Your task to perform on an android device: change notification settings in the gmail app Image 0: 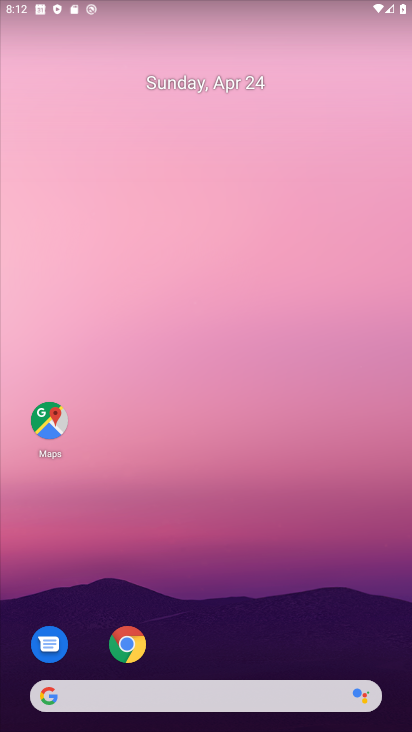
Step 0: drag from (176, 622) to (269, 115)
Your task to perform on an android device: change notification settings in the gmail app Image 1: 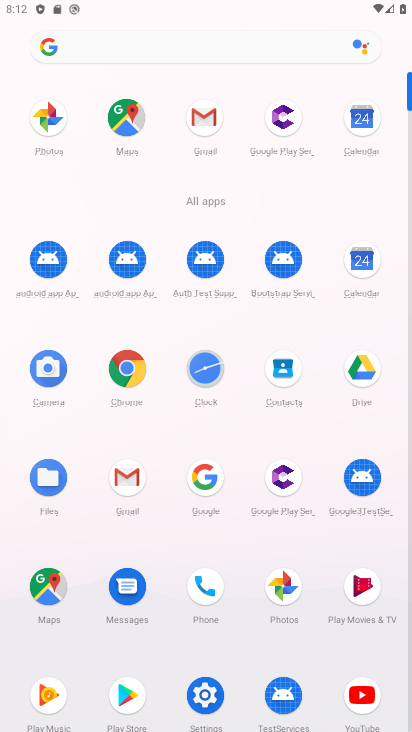
Step 1: click (128, 467)
Your task to perform on an android device: change notification settings in the gmail app Image 2: 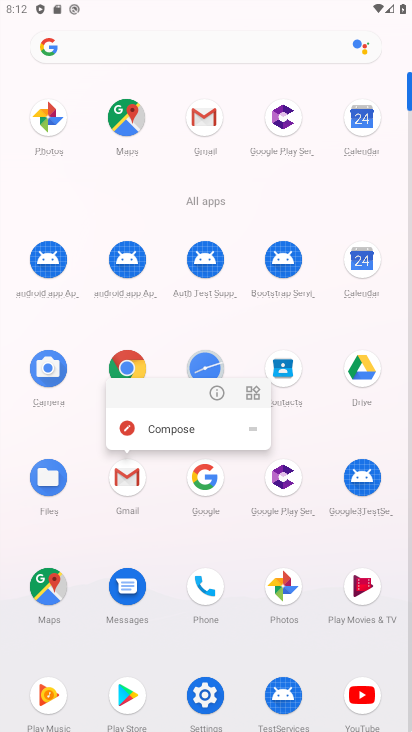
Step 2: click (211, 394)
Your task to perform on an android device: change notification settings in the gmail app Image 3: 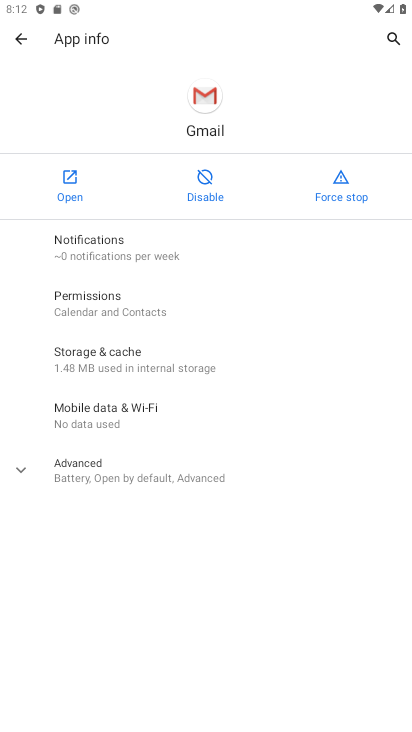
Step 3: click (73, 171)
Your task to perform on an android device: change notification settings in the gmail app Image 4: 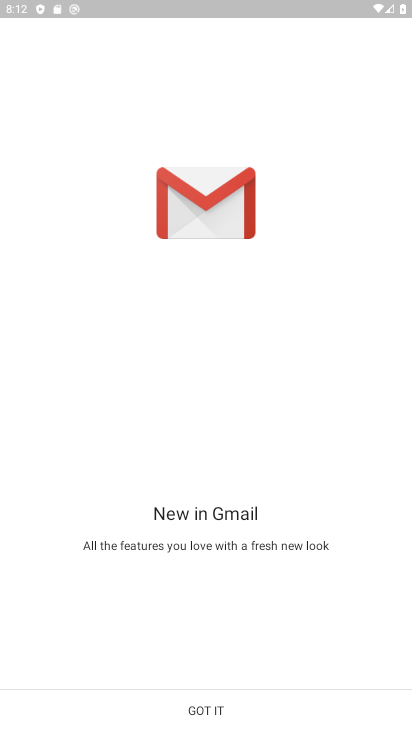
Step 4: click (203, 703)
Your task to perform on an android device: change notification settings in the gmail app Image 5: 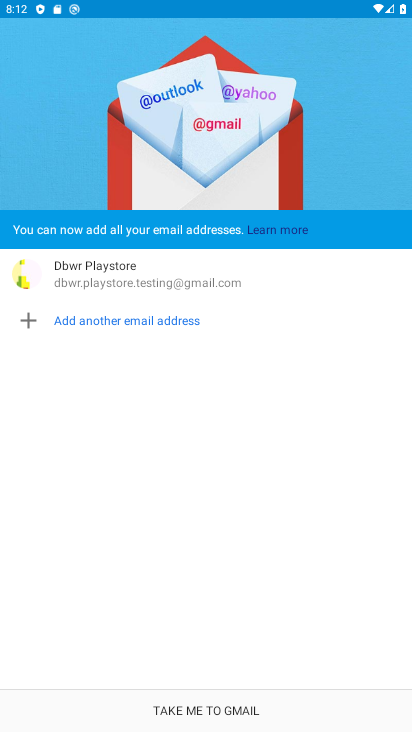
Step 5: click (211, 698)
Your task to perform on an android device: change notification settings in the gmail app Image 6: 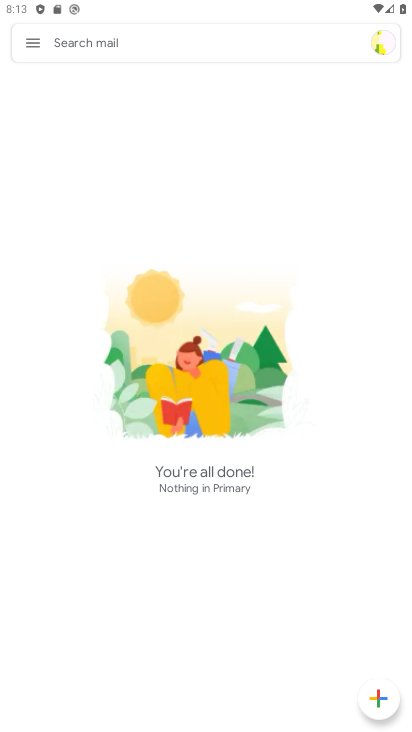
Step 6: click (33, 41)
Your task to perform on an android device: change notification settings in the gmail app Image 7: 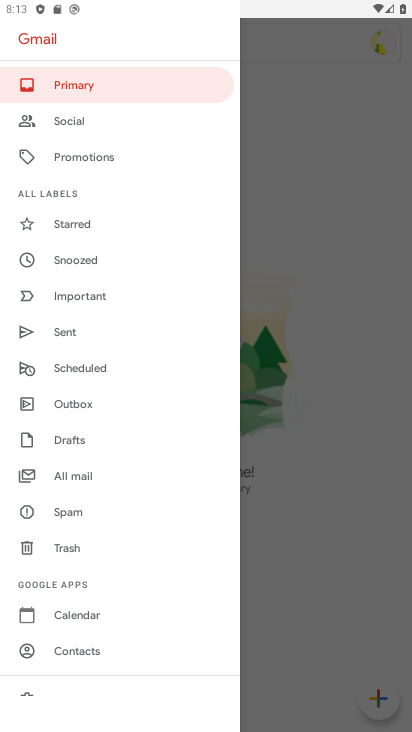
Step 7: drag from (113, 613) to (156, 275)
Your task to perform on an android device: change notification settings in the gmail app Image 8: 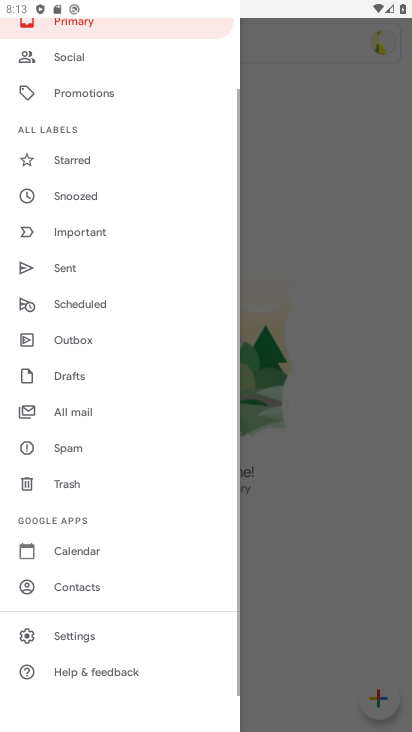
Step 8: click (92, 638)
Your task to perform on an android device: change notification settings in the gmail app Image 9: 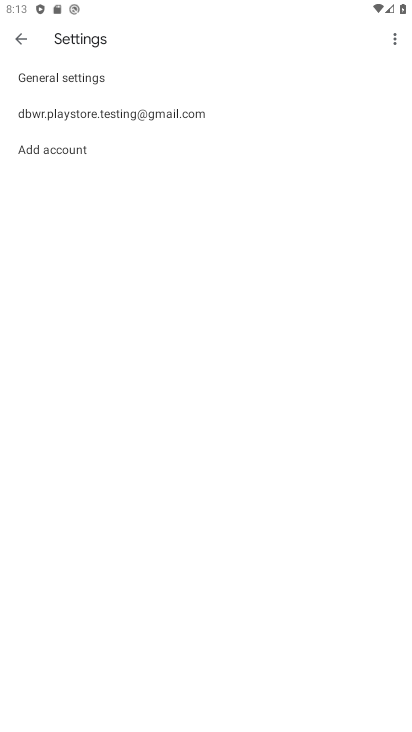
Step 9: click (85, 116)
Your task to perform on an android device: change notification settings in the gmail app Image 10: 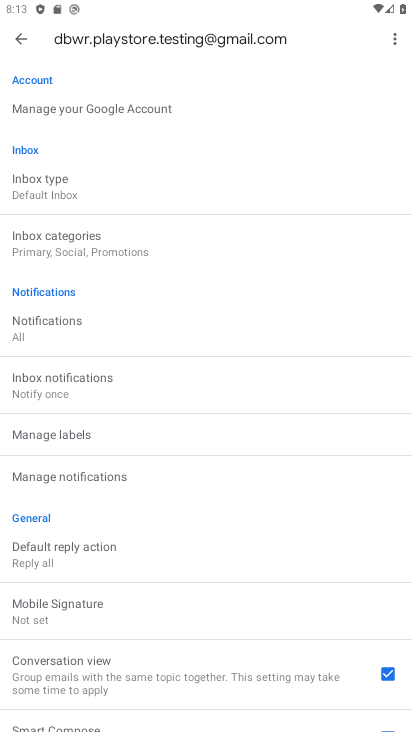
Step 10: click (122, 481)
Your task to perform on an android device: change notification settings in the gmail app Image 11: 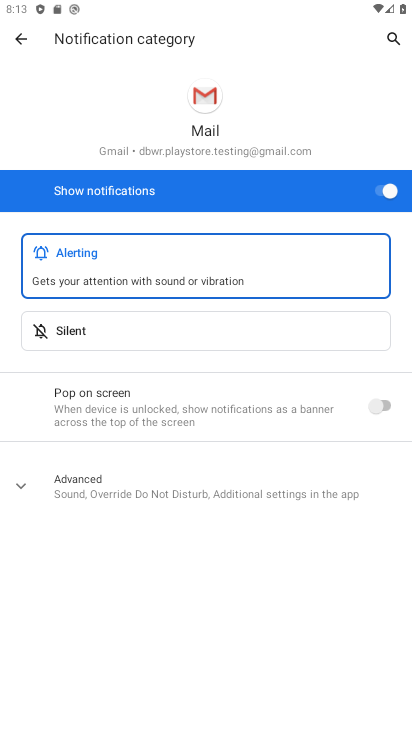
Step 11: click (367, 184)
Your task to perform on an android device: change notification settings in the gmail app Image 12: 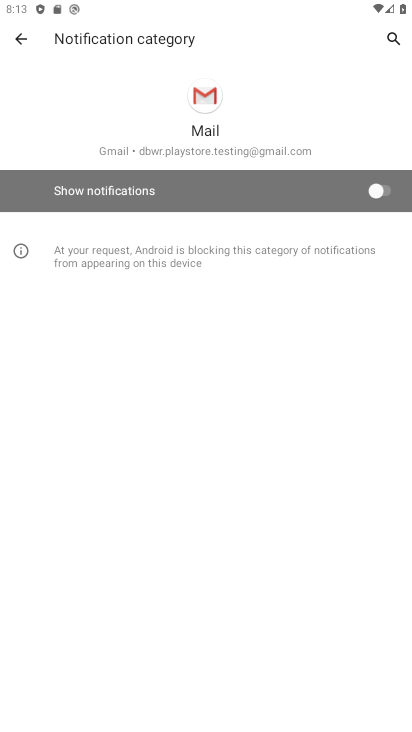
Step 12: task complete